Your task to perform on an android device: turn on location history Image 0: 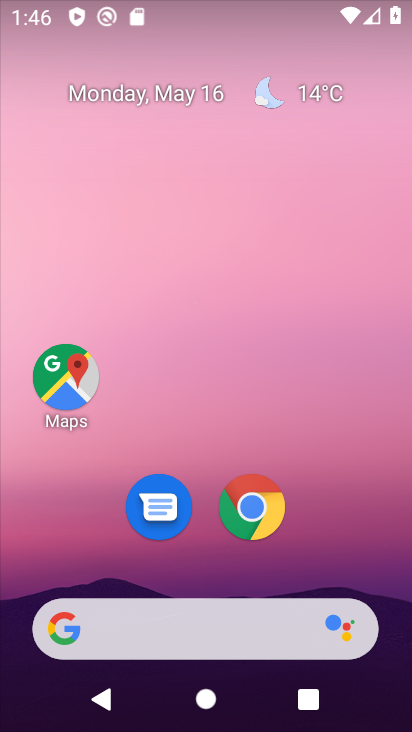
Step 0: drag from (251, 568) to (281, 177)
Your task to perform on an android device: turn on location history Image 1: 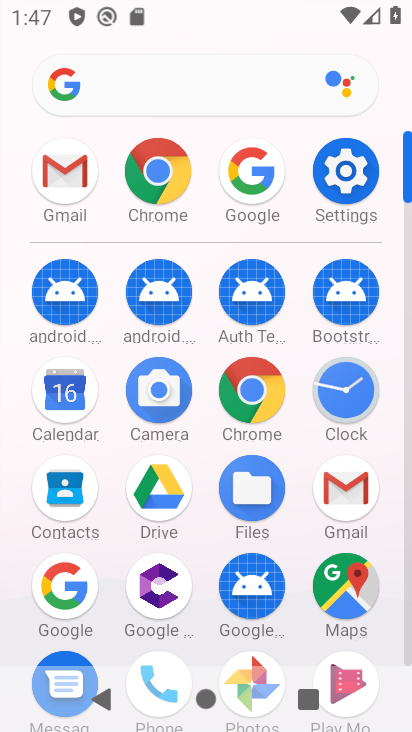
Step 1: click (345, 201)
Your task to perform on an android device: turn on location history Image 2: 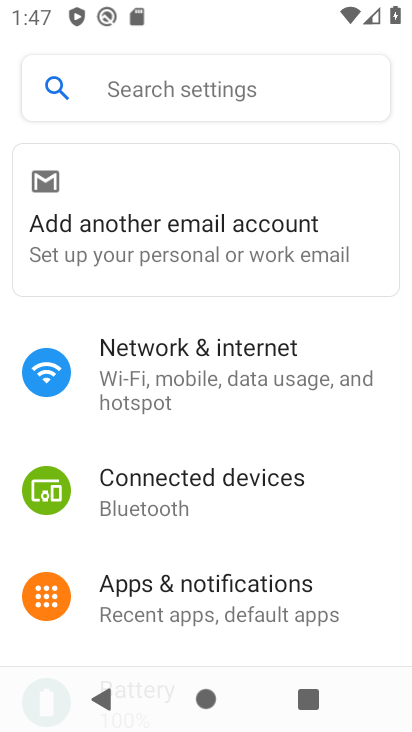
Step 2: drag from (203, 475) to (261, 125)
Your task to perform on an android device: turn on location history Image 3: 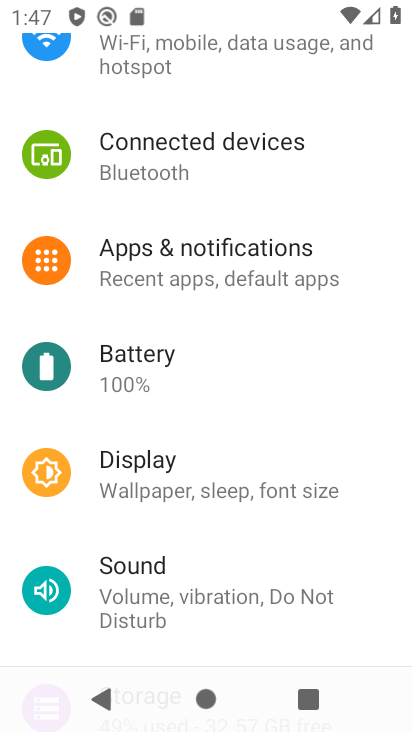
Step 3: drag from (244, 547) to (313, 187)
Your task to perform on an android device: turn on location history Image 4: 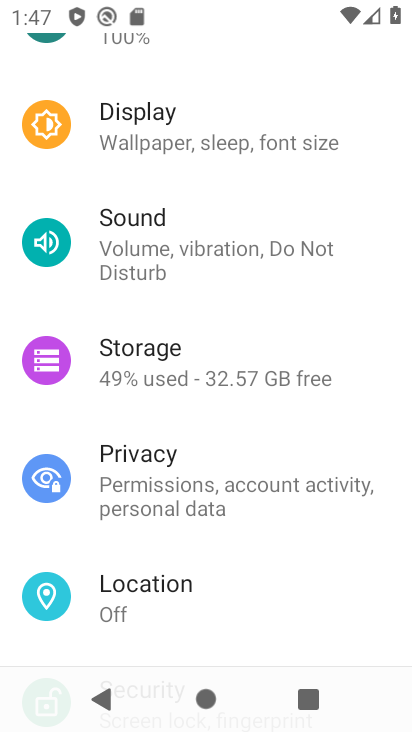
Step 4: click (213, 584)
Your task to perform on an android device: turn on location history Image 5: 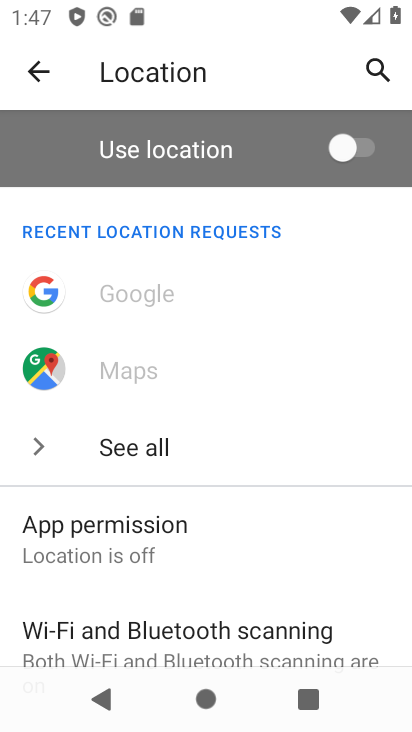
Step 5: drag from (283, 485) to (349, 156)
Your task to perform on an android device: turn on location history Image 6: 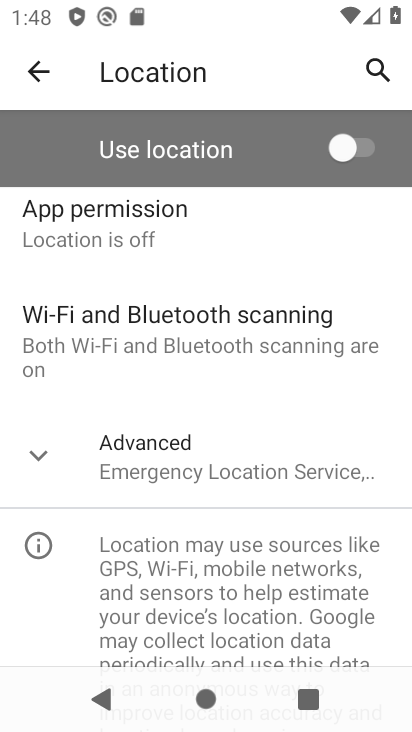
Step 6: click (180, 473)
Your task to perform on an android device: turn on location history Image 7: 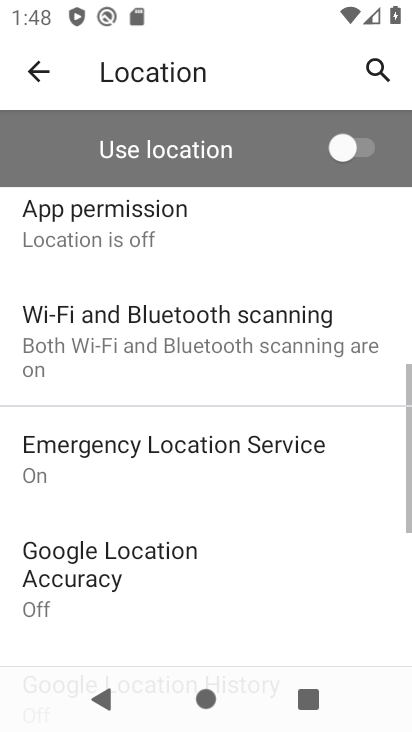
Step 7: drag from (180, 473) to (224, 133)
Your task to perform on an android device: turn on location history Image 8: 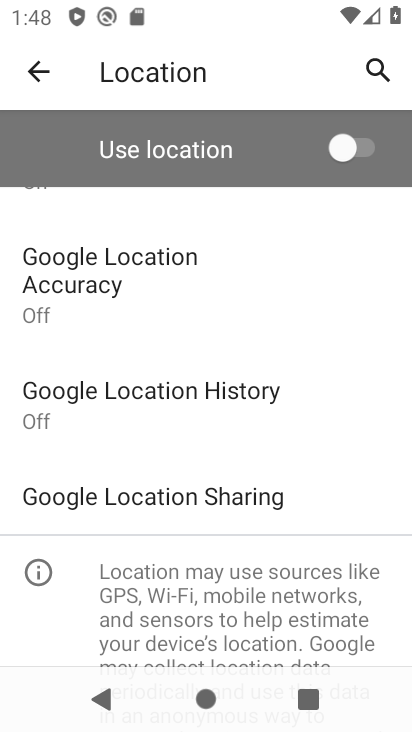
Step 8: click (205, 403)
Your task to perform on an android device: turn on location history Image 9: 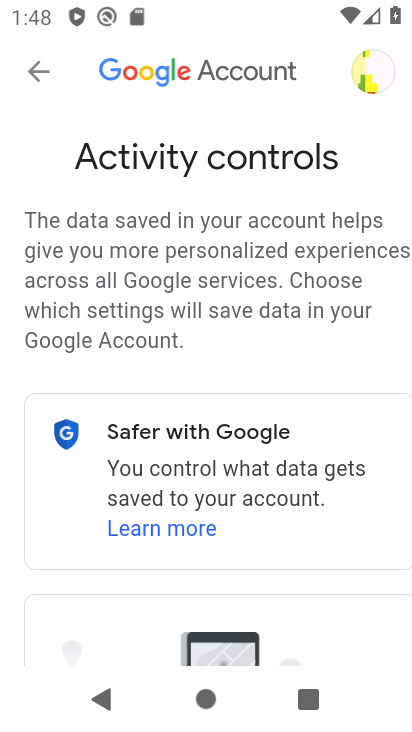
Step 9: drag from (219, 600) to (274, 221)
Your task to perform on an android device: turn on location history Image 10: 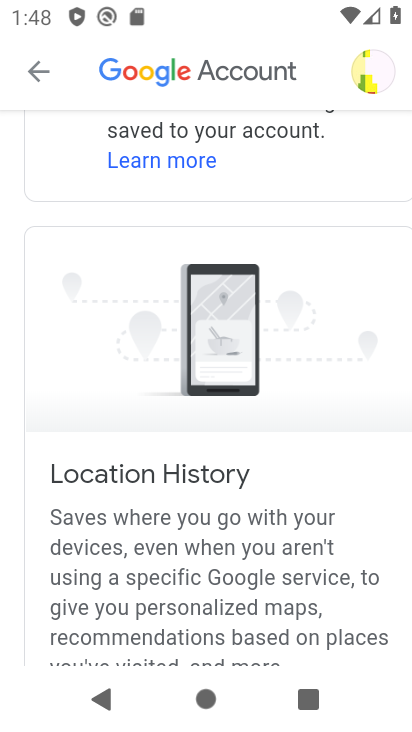
Step 10: drag from (193, 606) to (283, 65)
Your task to perform on an android device: turn on location history Image 11: 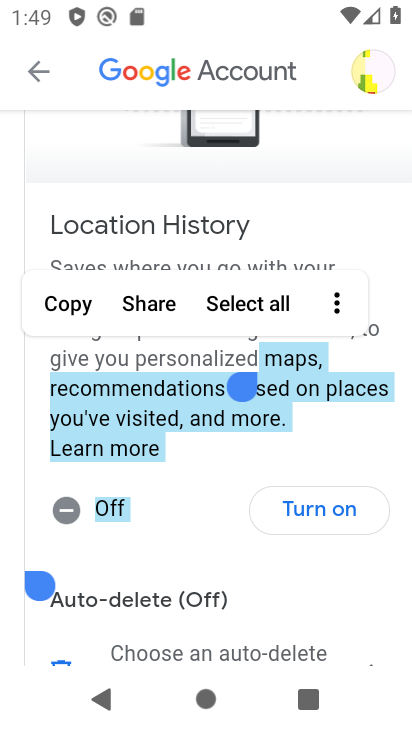
Step 11: drag from (286, 257) to (309, 179)
Your task to perform on an android device: turn on location history Image 12: 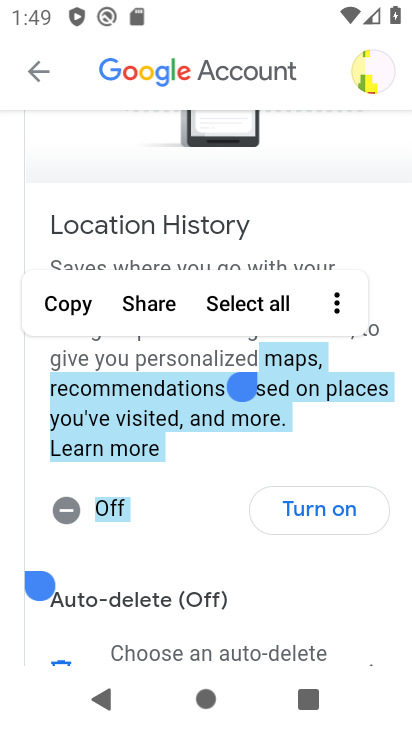
Step 12: click (339, 525)
Your task to perform on an android device: turn on location history Image 13: 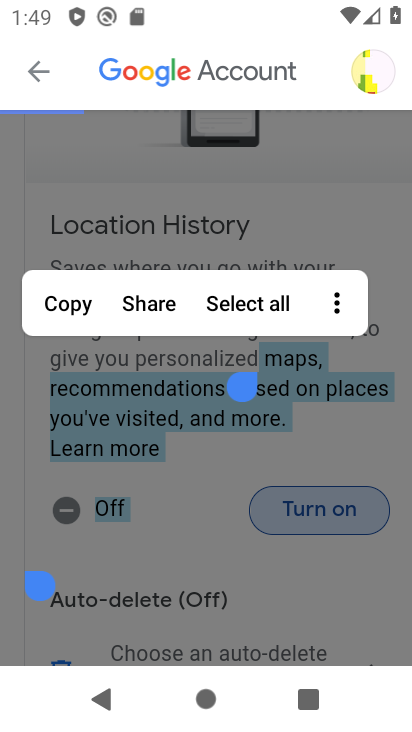
Step 13: click (335, 508)
Your task to perform on an android device: turn on location history Image 14: 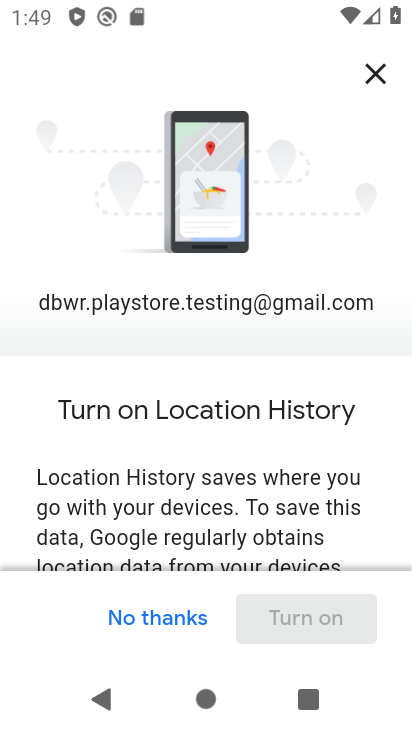
Step 14: drag from (191, 622) to (303, 216)
Your task to perform on an android device: turn on location history Image 15: 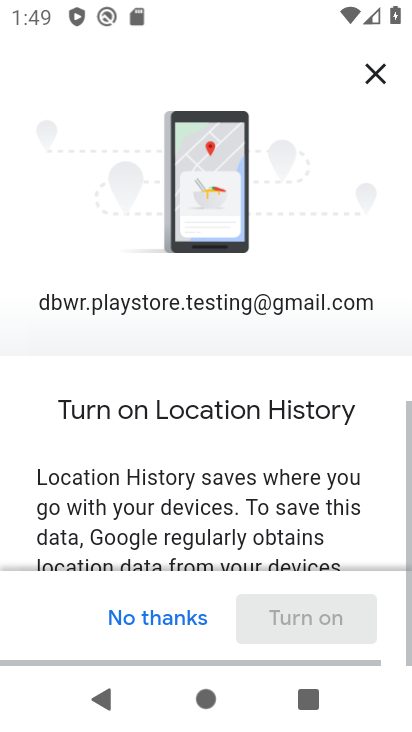
Step 15: drag from (320, 185) to (330, 93)
Your task to perform on an android device: turn on location history Image 16: 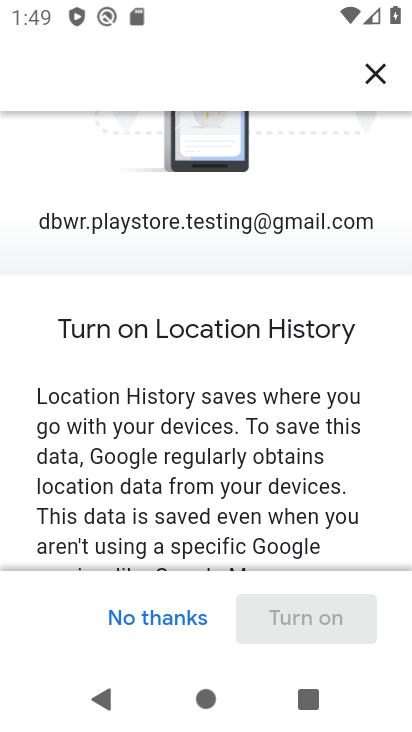
Step 16: drag from (272, 514) to (343, 112)
Your task to perform on an android device: turn on location history Image 17: 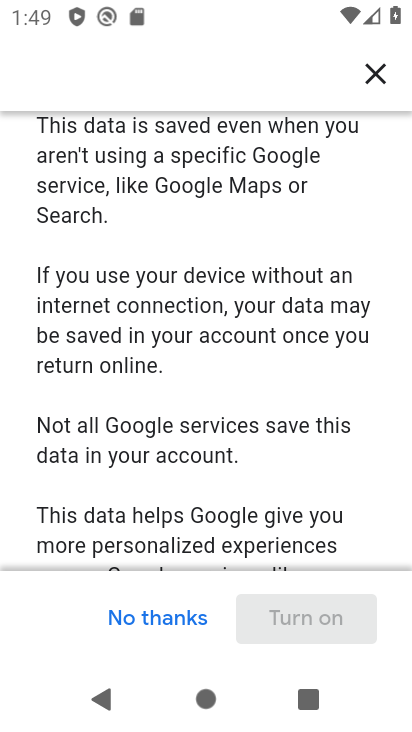
Step 17: drag from (256, 519) to (291, 142)
Your task to perform on an android device: turn on location history Image 18: 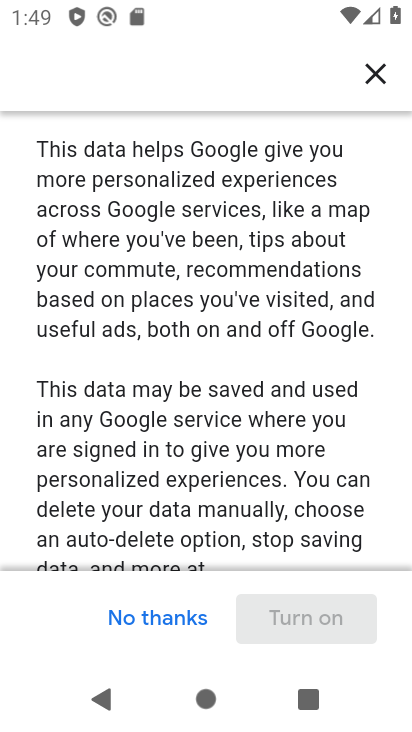
Step 18: drag from (267, 490) to (328, 107)
Your task to perform on an android device: turn on location history Image 19: 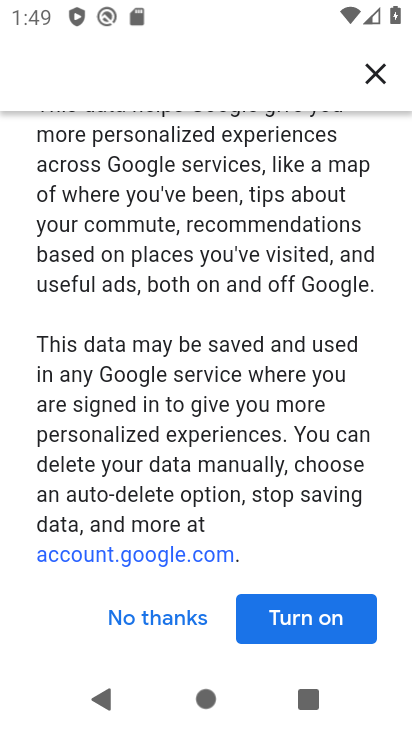
Step 19: click (285, 619)
Your task to perform on an android device: turn on location history Image 20: 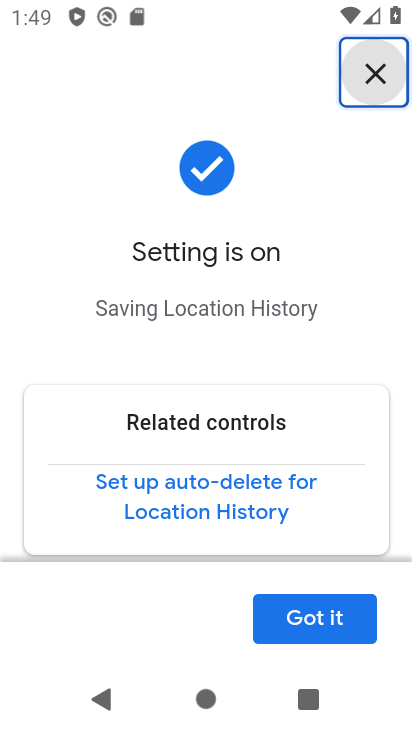
Step 20: click (299, 623)
Your task to perform on an android device: turn on location history Image 21: 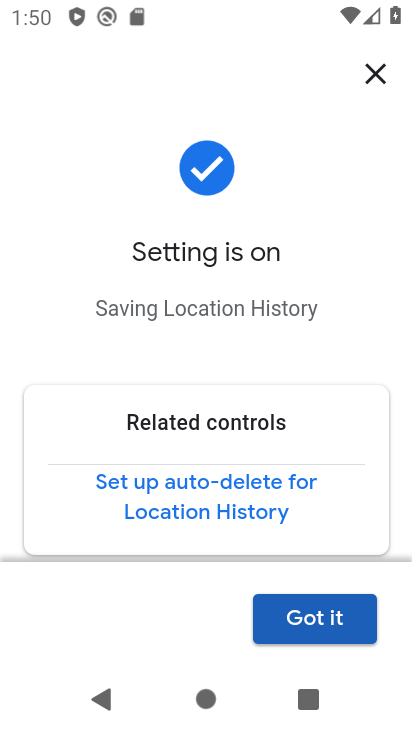
Step 21: click (311, 609)
Your task to perform on an android device: turn on location history Image 22: 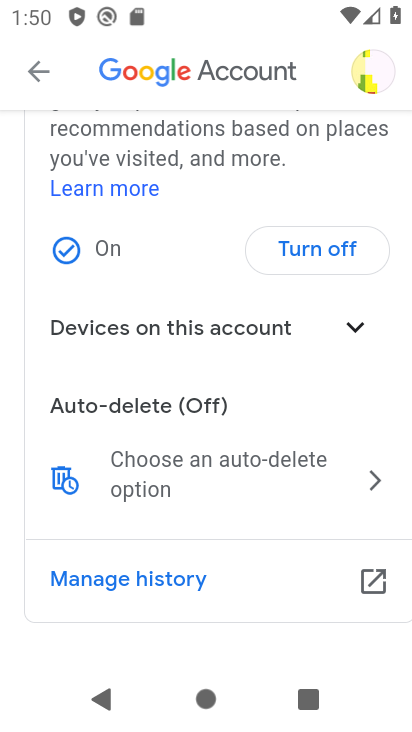
Step 22: task complete